Your task to perform on an android device: Go to Wikipedia Image 0: 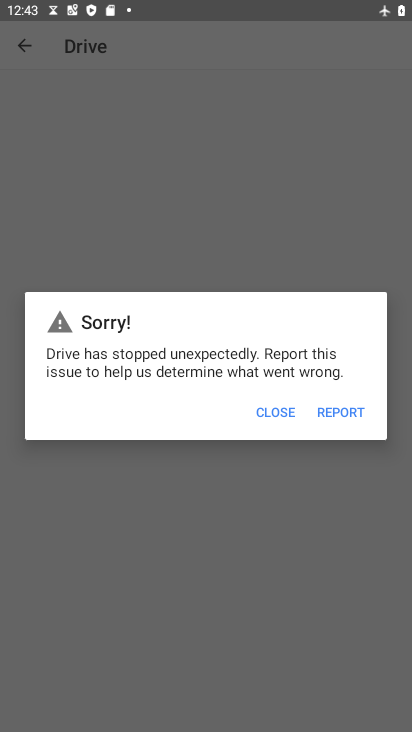
Step 0: press home button
Your task to perform on an android device: Go to Wikipedia Image 1: 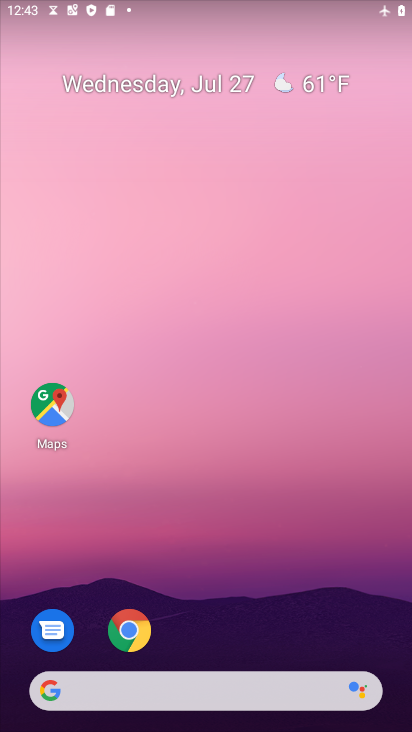
Step 1: click (124, 644)
Your task to perform on an android device: Go to Wikipedia Image 2: 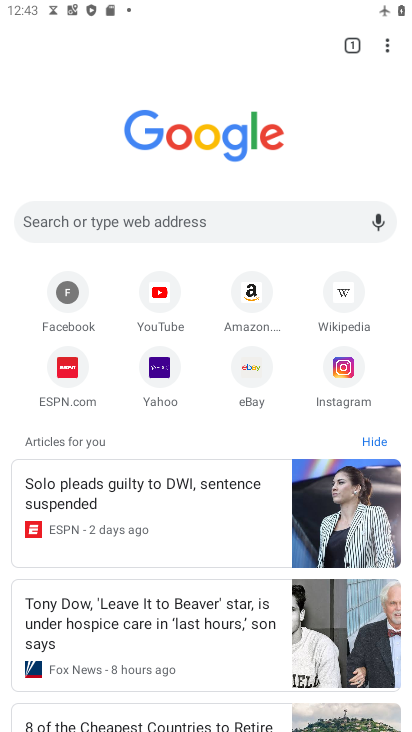
Step 2: click (331, 296)
Your task to perform on an android device: Go to Wikipedia Image 3: 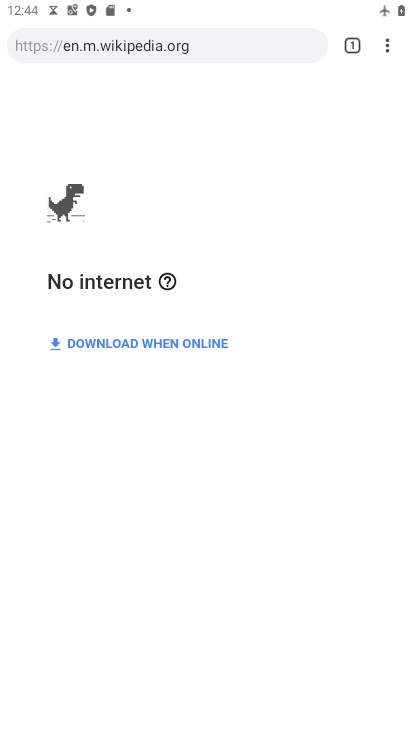
Step 3: task complete